Your task to perform on an android device: turn on translation in the chrome app Image 0: 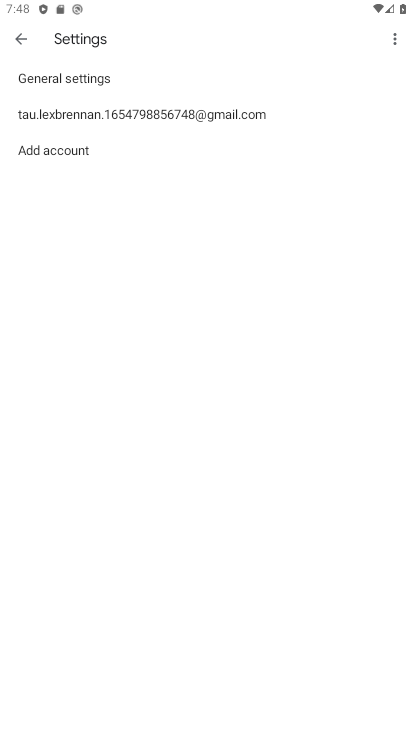
Step 0: press home button
Your task to perform on an android device: turn on translation in the chrome app Image 1: 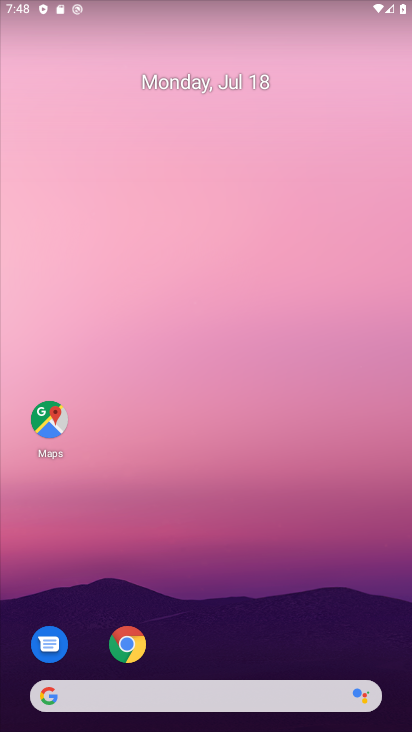
Step 1: click (125, 641)
Your task to perform on an android device: turn on translation in the chrome app Image 2: 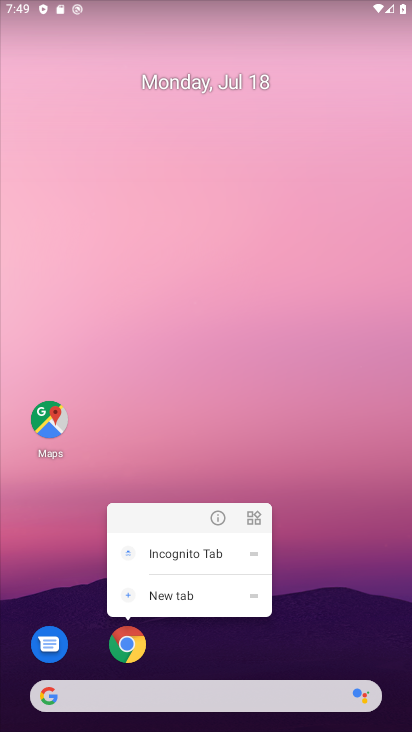
Step 2: click (125, 640)
Your task to perform on an android device: turn on translation in the chrome app Image 3: 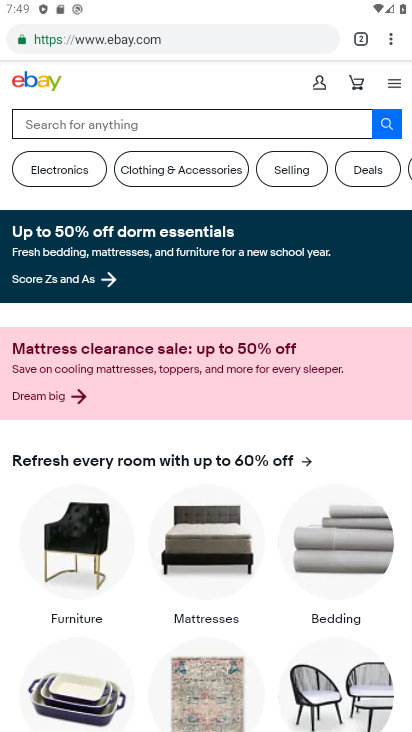
Step 3: click (390, 39)
Your task to perform on an android device: turn on translation in the chrome app Image 4: 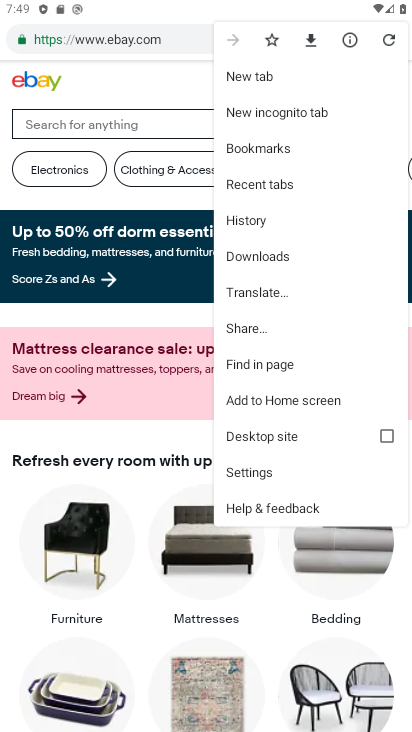
Step 4: click (285, 469)
Your task to perform on an android device: turn on translation in the chrome app Image 5: 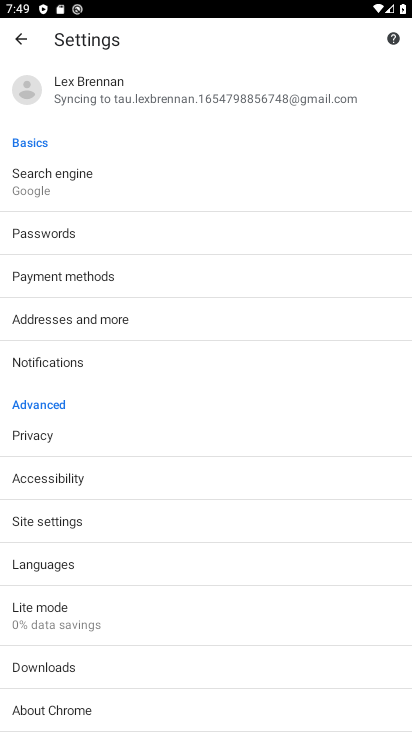
Step 5: click (89, 560)
Your task to perform on an android device: turn on translation in the chrome app Image 6: 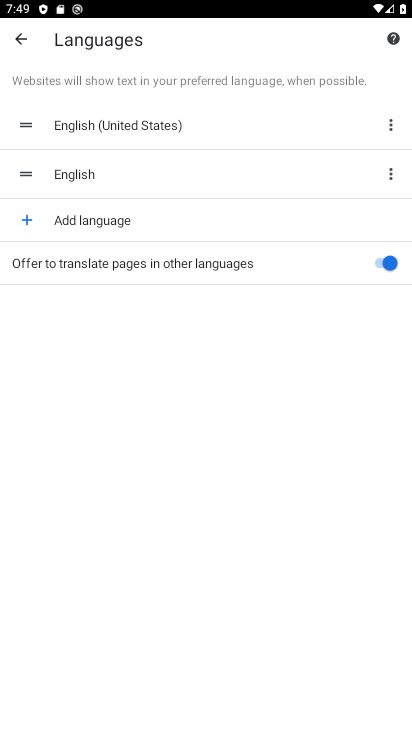
Step 6: task complete